Your task to perform on an android device: What's the weather? Image 0: 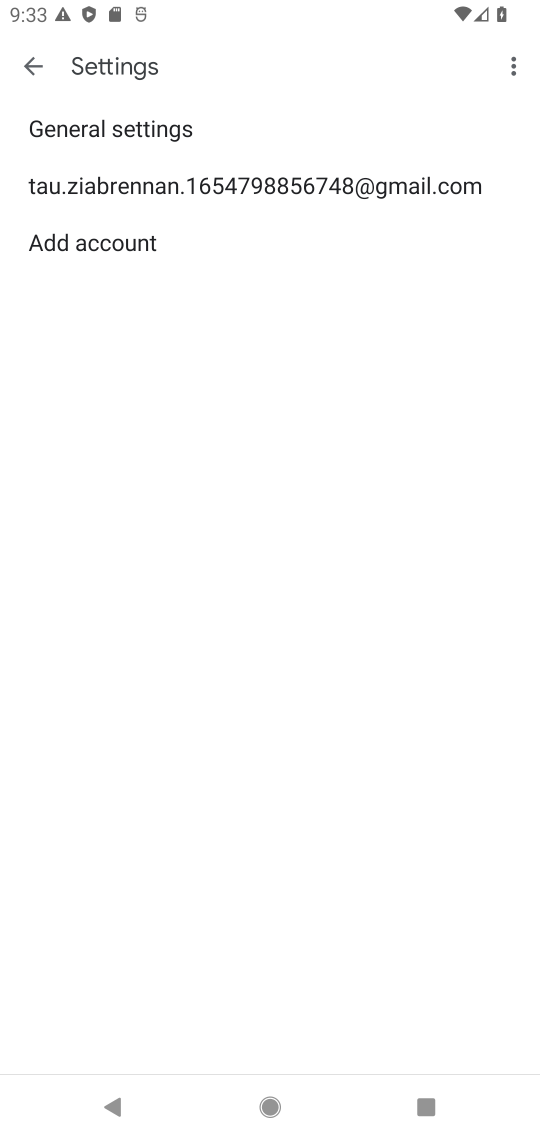
Step 0: press home button
Your task to perform on an android device: What's the weather? Image 1: 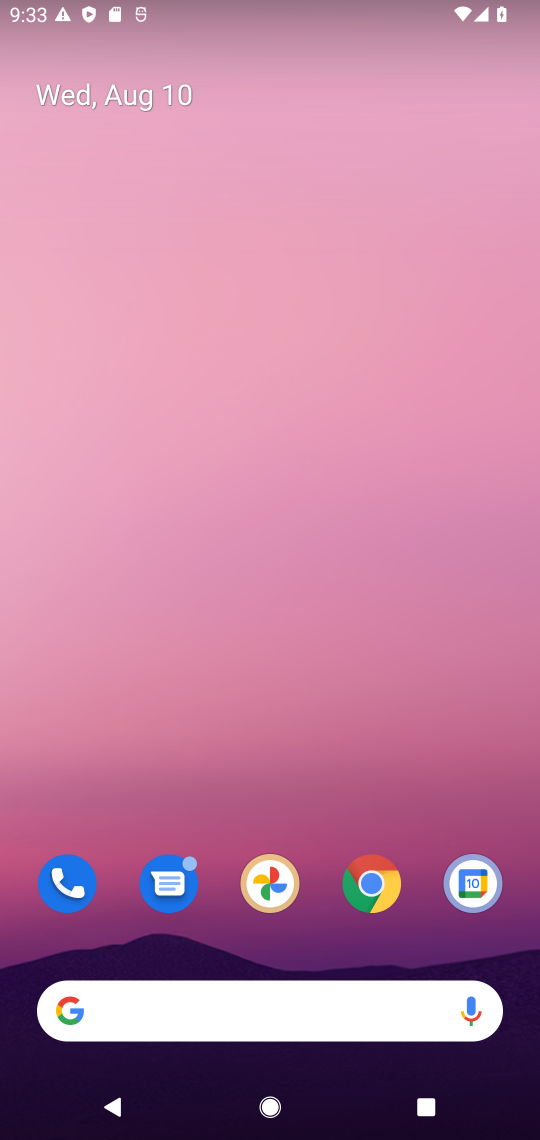
Step 1: click (419, 877)
Your task to perform on an android device: What's the weather? Image 2: 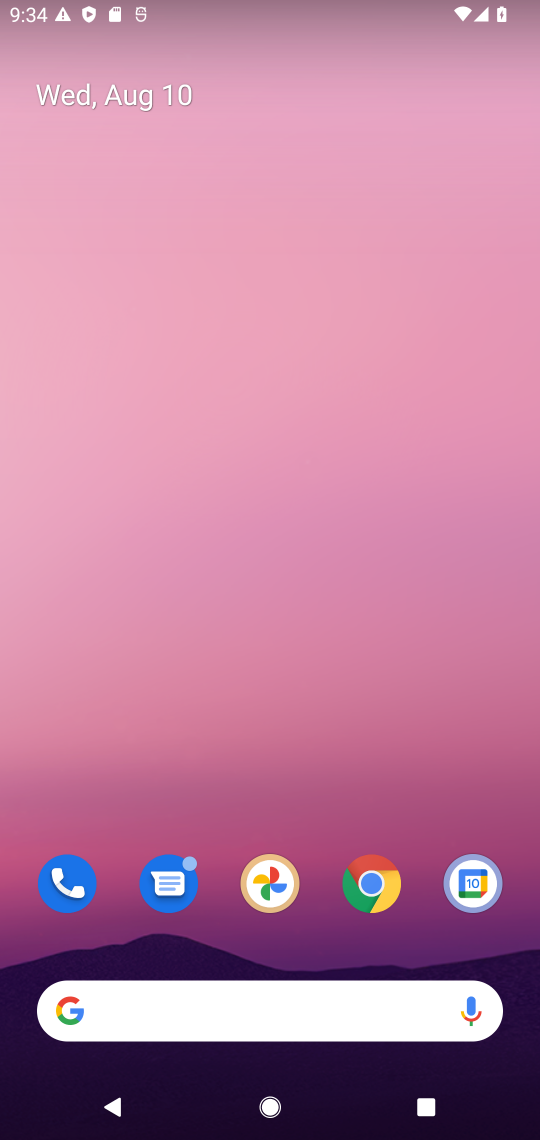
Step 2: click (374, 875)
Your task to perform on an android device: What's the weather? Image 3: 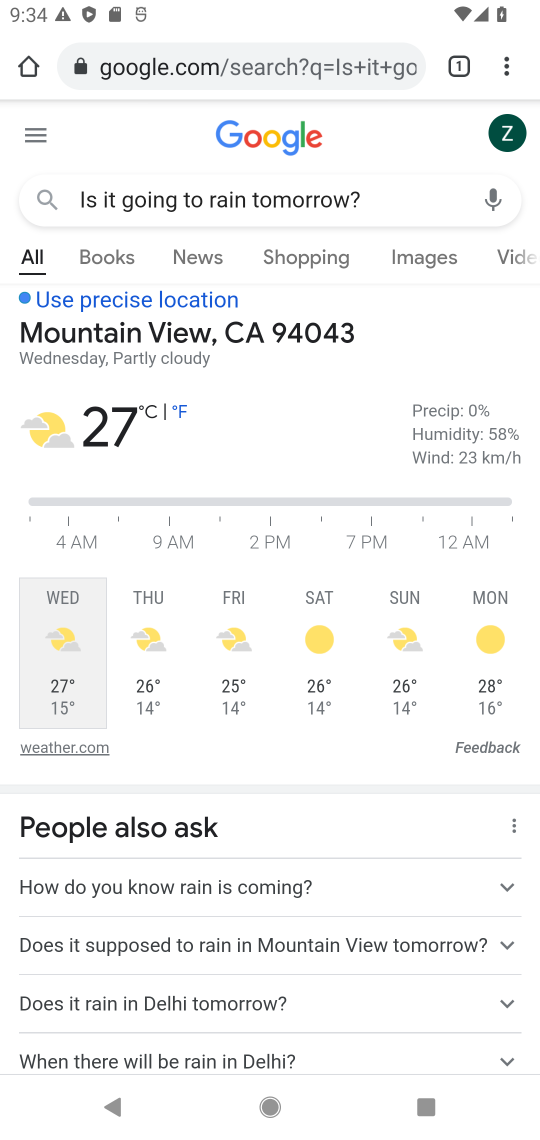
Step 3: click (267, 83)
Your task to perform on an android device: What's the weather? Image 4: 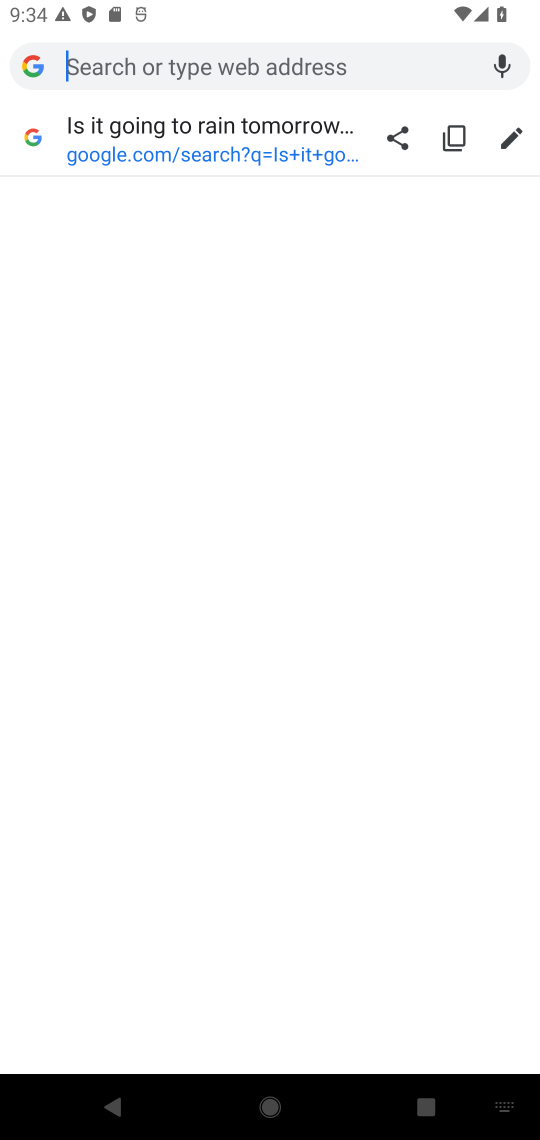
Step 4: type "What's the weather?"
Your task to perform on an android device: What's the weather? Image 5: 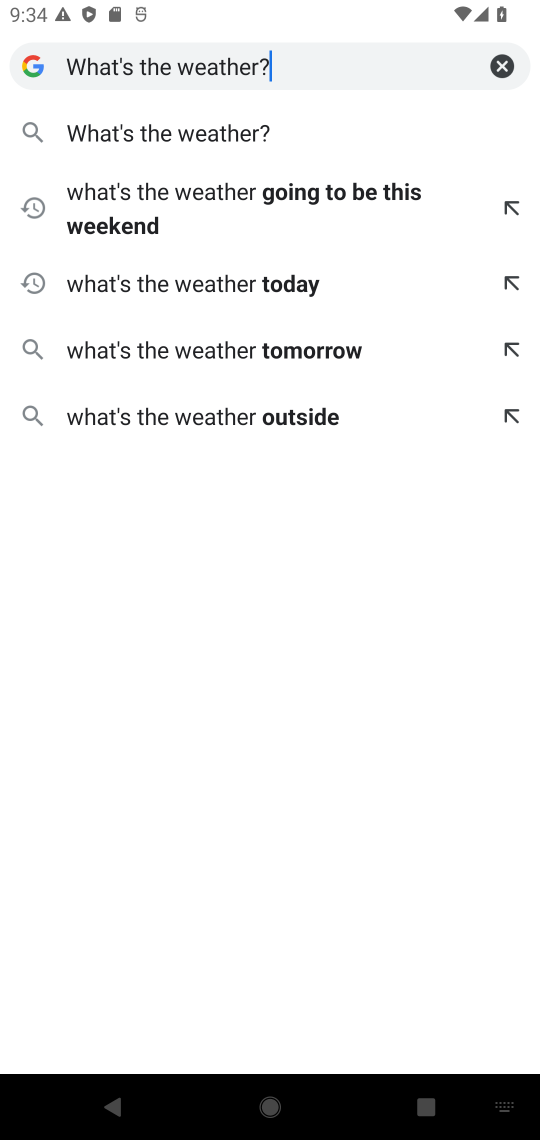
Step 5: click (214, 131)
Your task to perform on an android device: What's the weather? Image 6: 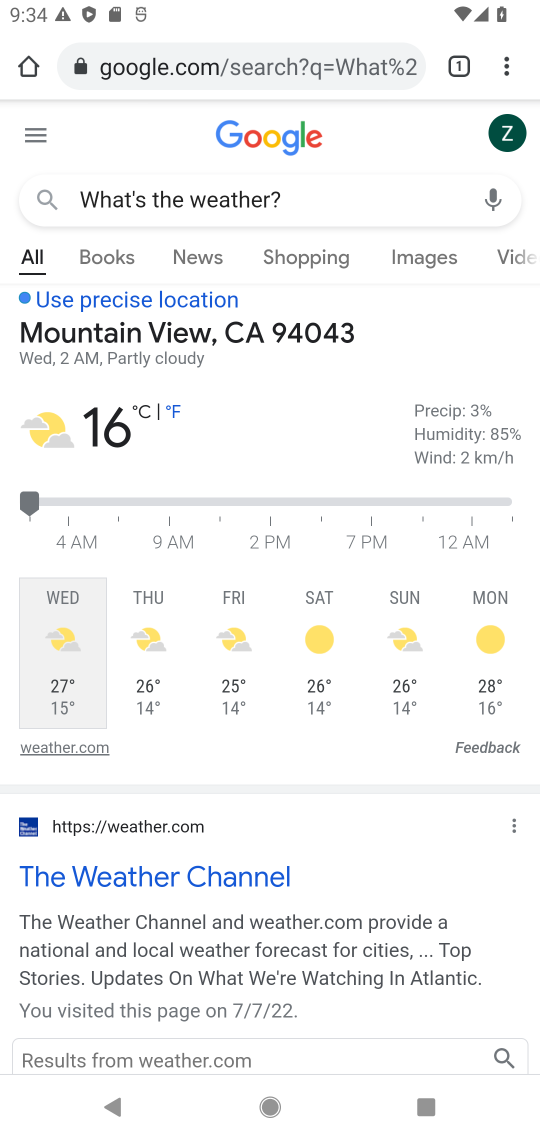
Step 6: task complete